Your task to perform on an android device: Turn off the flashlight Image 0: 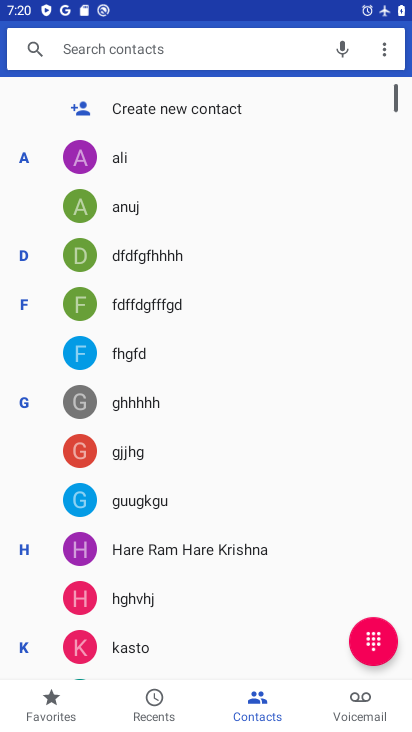
Step 0: press home button
Your task to perform on an android device: Turn off the flashlight Image 1: 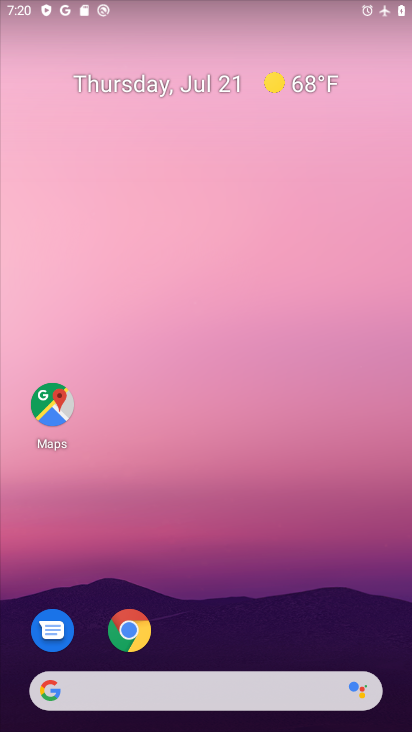
Step 1: drag from (180, 582) to (7, 1)
Your task to perform on an android device: Turn off the flashlight Image 2: 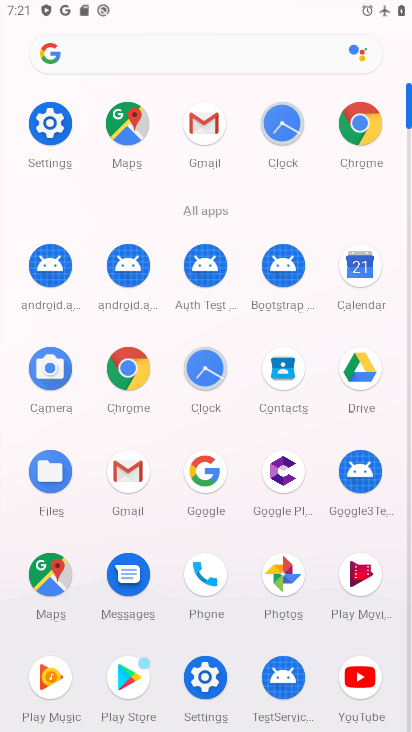
Step 2: click (60, 132)
Your task to perform on an android device: Turn off the flashlight Image 3: 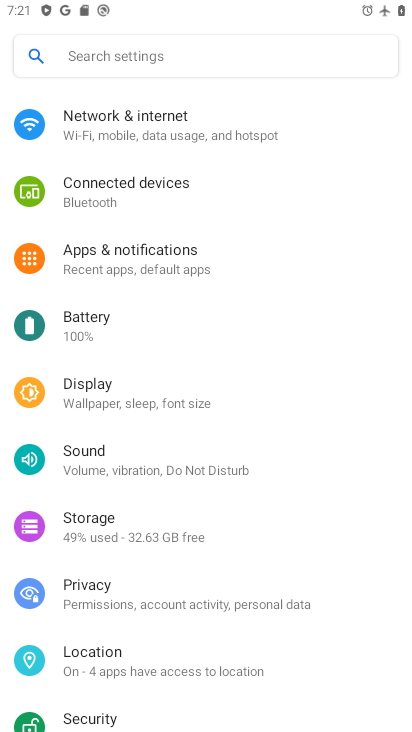
Step 3: task complete